Your task to perform on an android device: manage bookmarks in the chrome app Image 0: 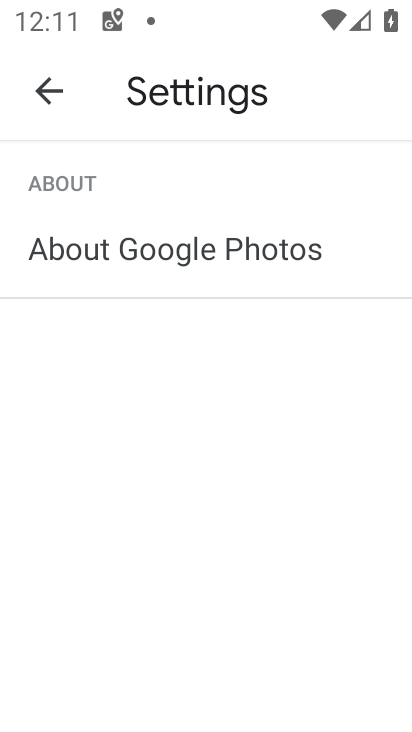
Step 0: press home button
Your task to perform on an android device: manage bookmarks in the chrome app Image 1: 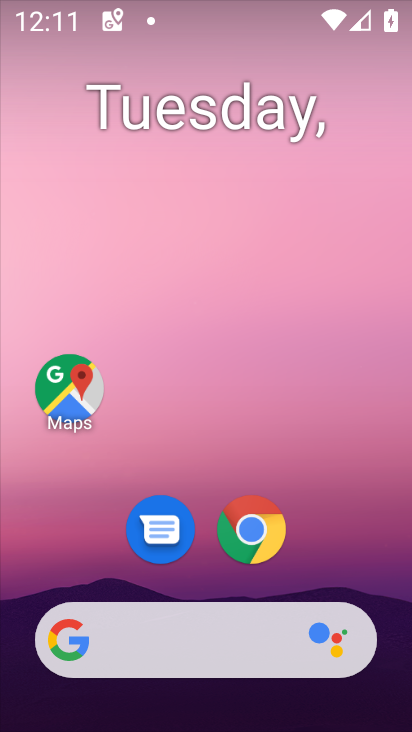
Step 1: click (239, 527)
Your task to perform on an android device: manage bookmarks in the chrome app Image 2: 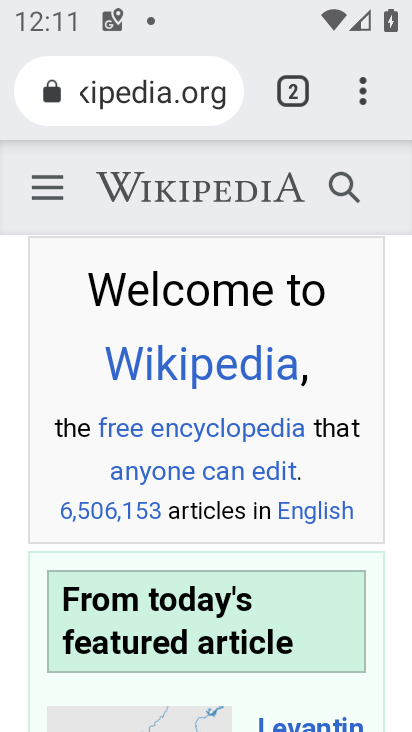
Step 2: click (364, 90)
Your task to perform on an android device: manage bookmarks in the chrome app Image 3: 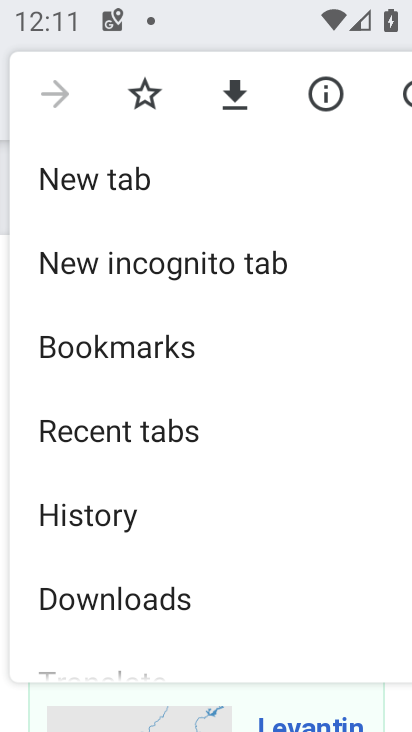
Step 3: click (123, 354)
Your task to perform on an android device: manage bookmarks in the chrome app Image 4: 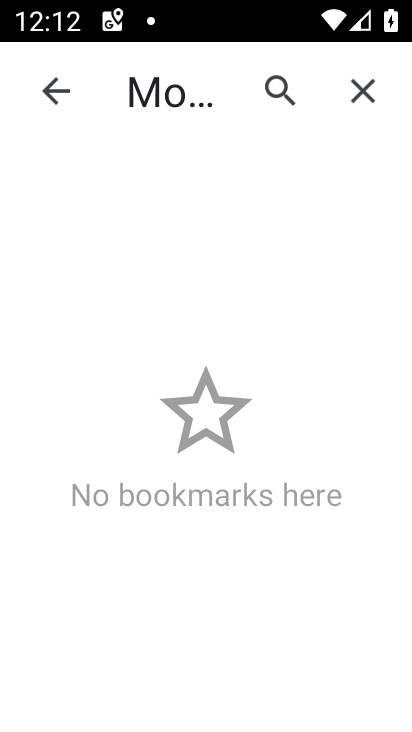
Step 4: task complete